Your task to perform on an android device: Go to Reddit.com Image 0: 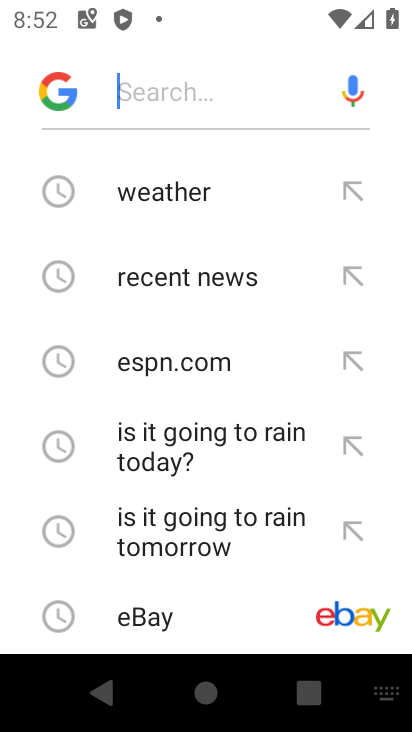
Step 0: press home button
Your task to perform on an android device: Go to Reddit.com Image 1: 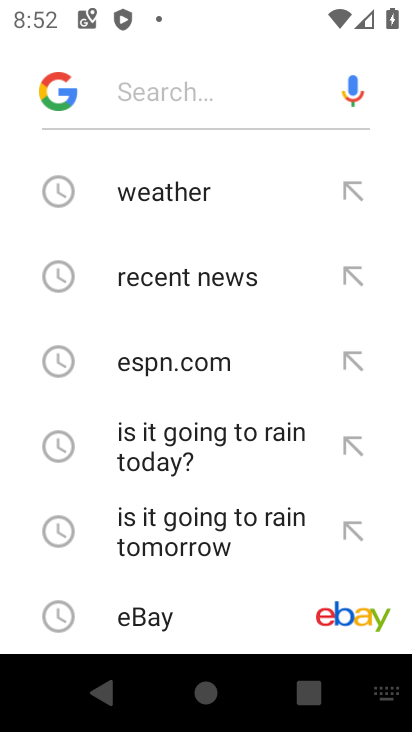
Step 1: press home button
Your task to perform on an android device: Go to Reddit.com Image 2: 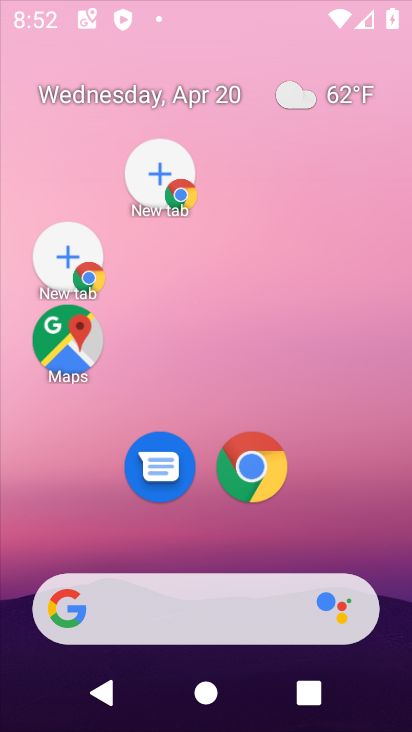
Step 2: press home button
Your task to perform on an android device: Go to Reddit.com Image 3: 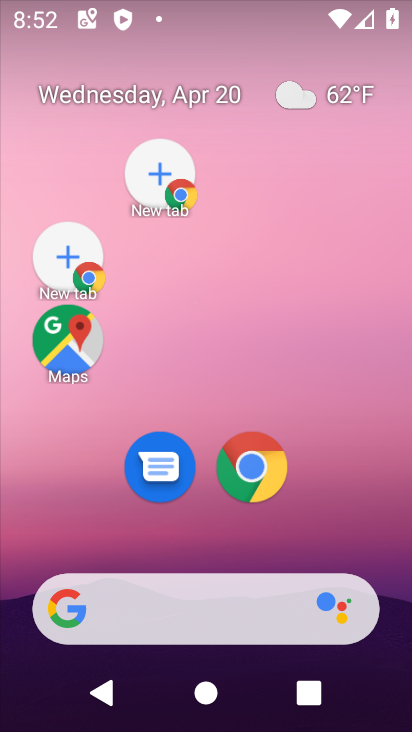
Step 3: click (163, 29)
Your task to perform on an android device: Go to Reddit.com Image 4: 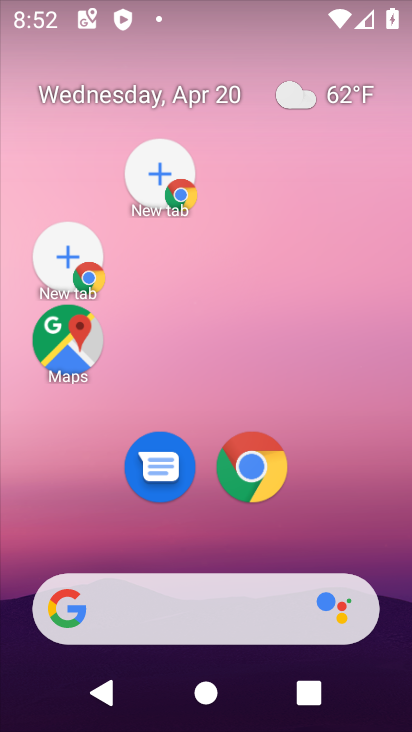
Step 4: drag from (218, 449) to (179, 98)
Your task to perform on an android device: Go to Reddit.com Image 5: 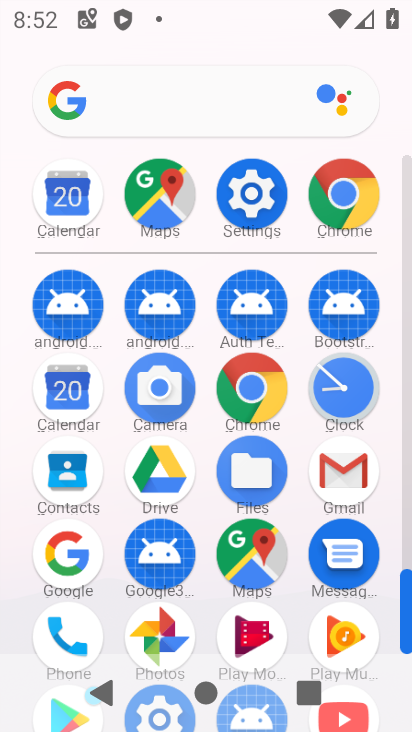
Step 5: drag from (271, 417) to (200, 117)
Your task to perform on an android device: Go to Reddit.com Image 6: 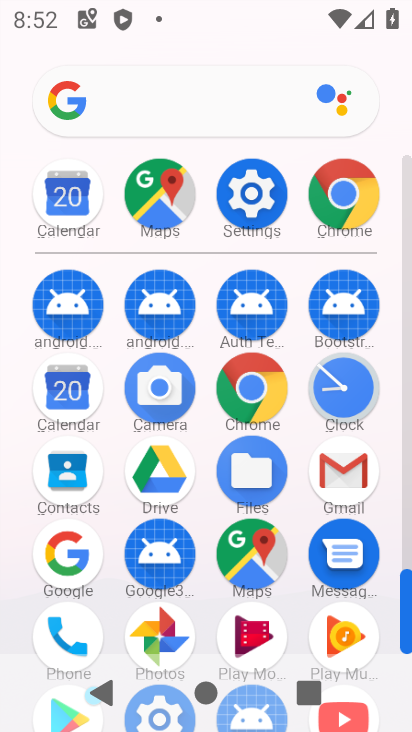
Step 6: drag from (207, 519) to (153, 224)
Your task to perform on an android device: Go to Reddit.com Image 7: 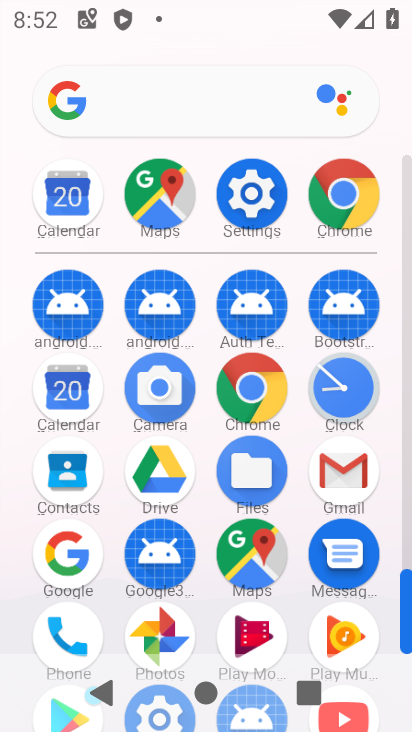
Step 7: drag from (183, 365) to (183, 87)
Your task to perform on an android device: Go to Reddit.com Image 8: 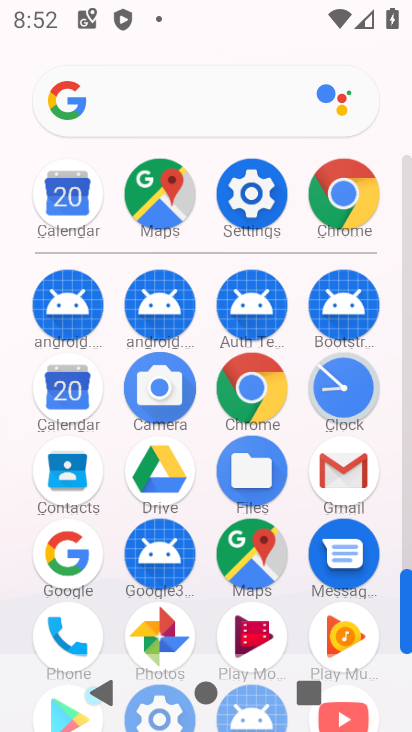
Step 8: drag from (216, 421) to (215, 254)
Your task to perform on an android device: Go to Reddit.com Image 9: 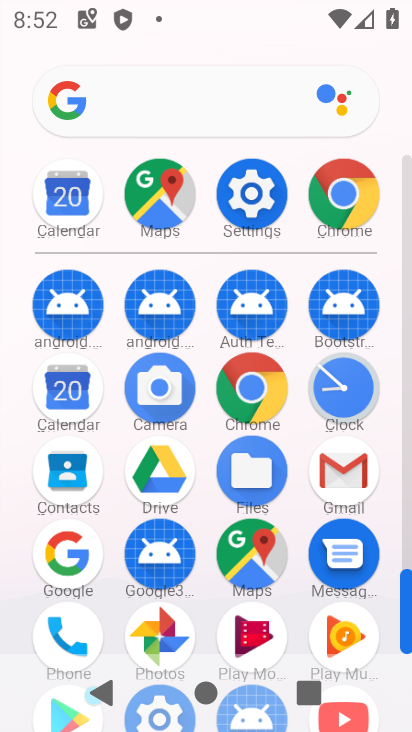
Step 9: drag from (166, 225) to (185, 103)
Your task to perform on an android device: Go to Reddit.com Image 10: 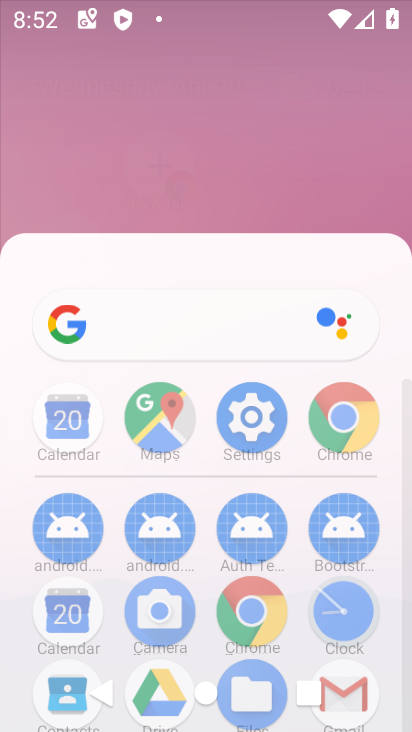
Step 10: drag from (213, 131) to (223, 75)
Your task to perform on an android device: Go to Reddit.com Image 11: 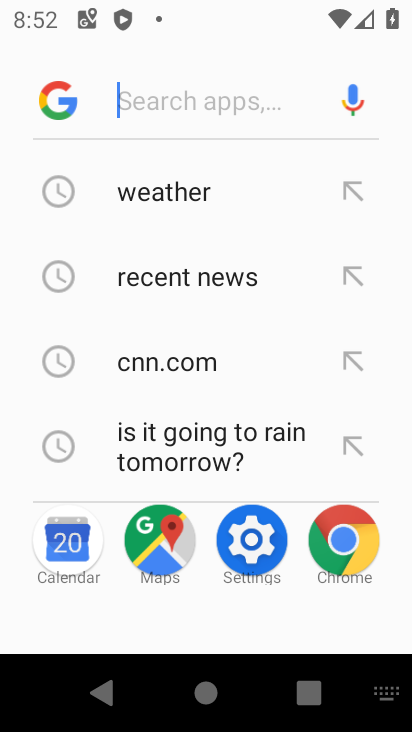
Step 11: press home button
Your task to perform on an android device: Go to Reddit.com Image 12: 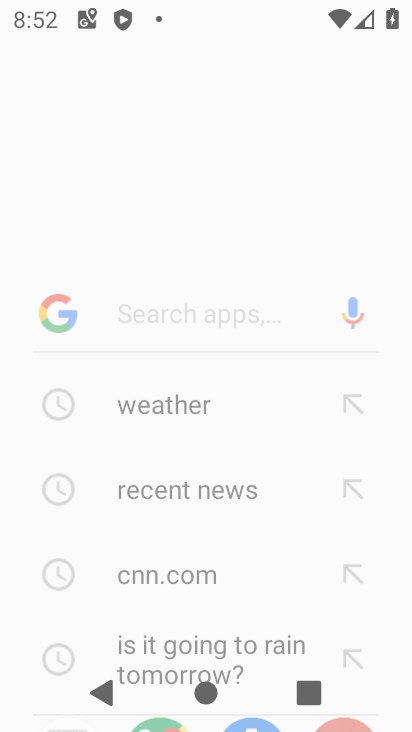
Step 12: press home button
Your task to perform on an android device: Go to Reddit.com Image 13: 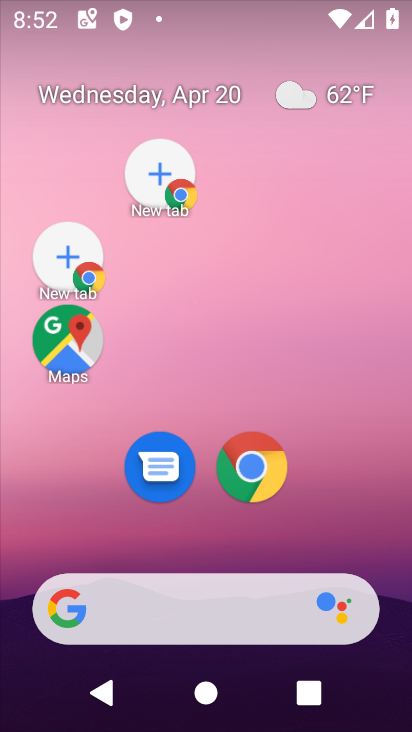
Step 13: press home button
Your task to perform on an android device: Go to Reddit.com Image 14: 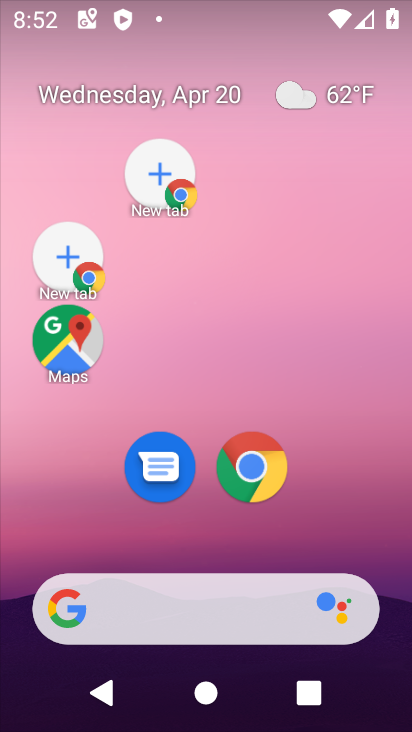
Step 14: press home button
Your task to perform on an android device: Go to Reddit.com Image 15: 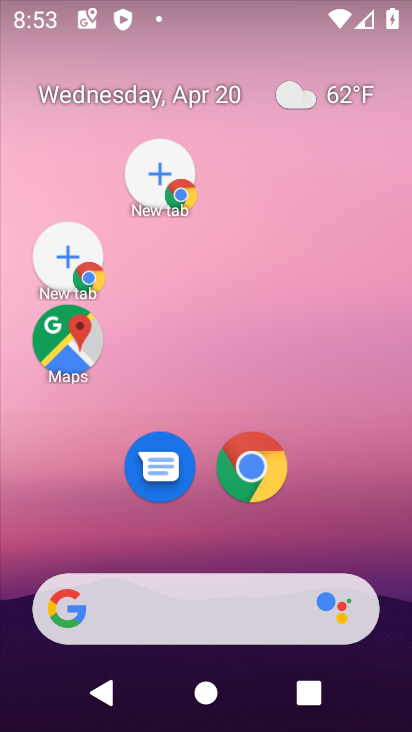
Step 15: drag from (258, 230) to (234, 92)
Your task to perform on an android device: Go to Reddit.com Image 16: 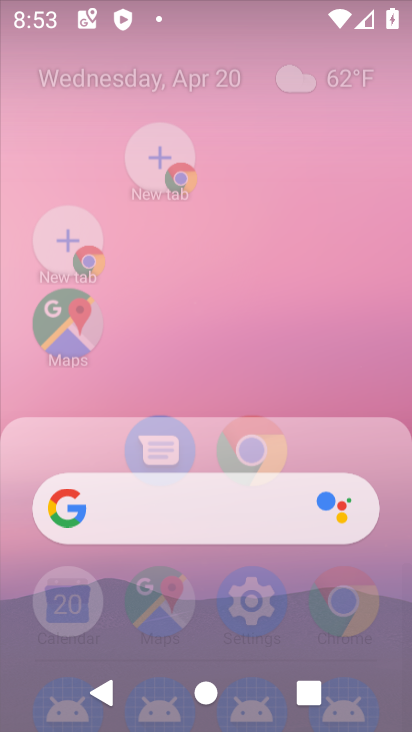
Step 16: drag from (277, 397) to (259, 12)
Your task to perform on an android device: Go to Reddit.com Image 17: 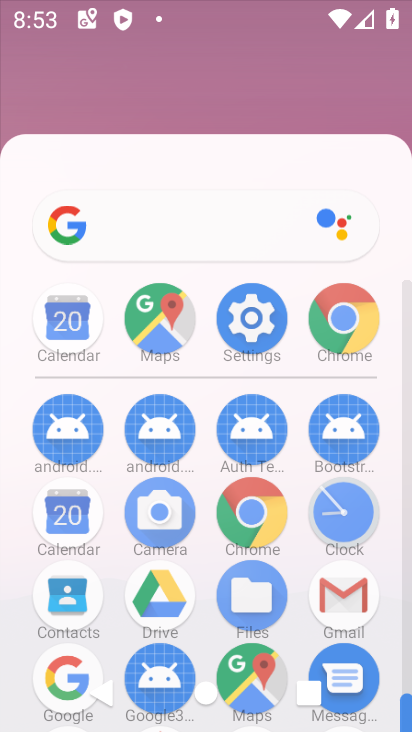
Step 17: drag from (265, 166) to (282, 8)
Your task to perform on an android device: Go to Reddit.com Image 18: 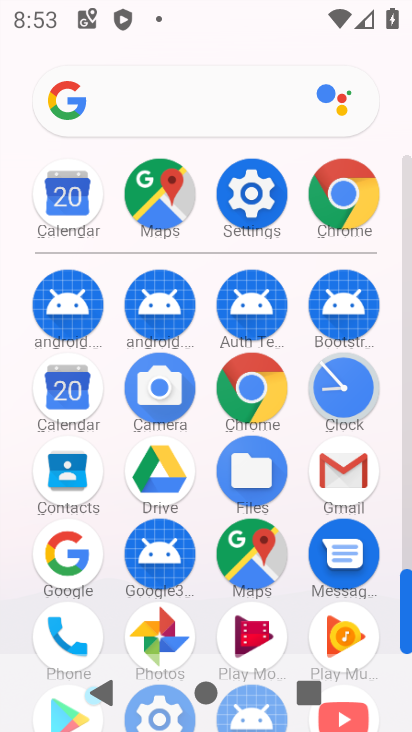
Step 18: drag from (189, 191) to (189, 18)
Your task to perform on an android device: Go to Reddit.com Image 19: 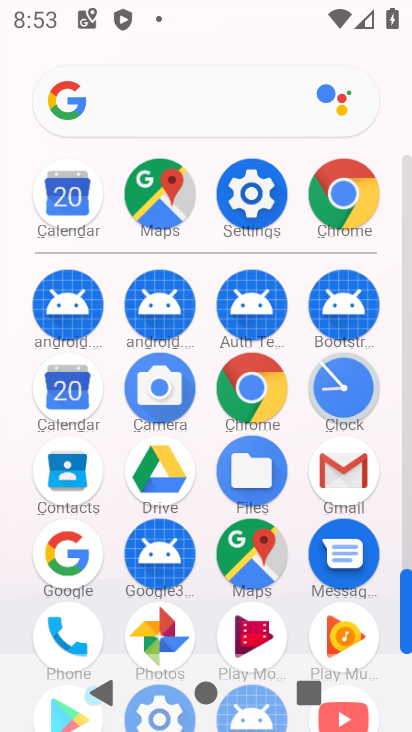
Step 19: click (398, 670)
Your task to perform on an android device: Go to Reddit.com Image 20: 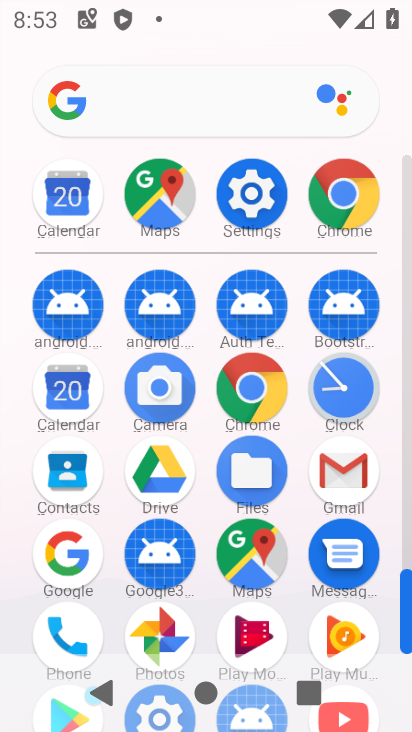
Step 20: drag from (355, 368) to (335, 138)
Your task to perform on an android device: Go to Reddit.com Image 21: 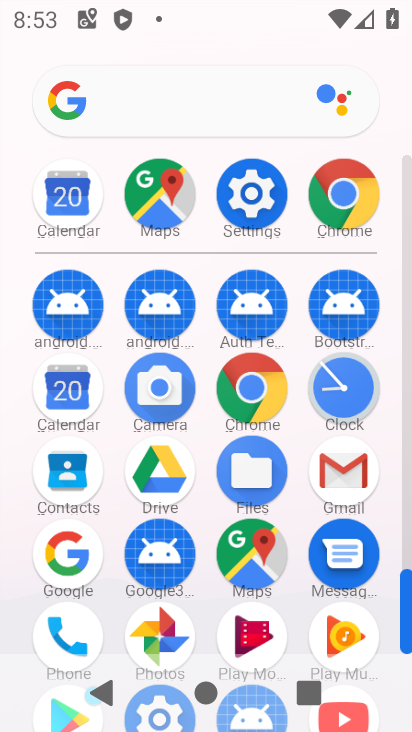
Step 21: drag from (286, 468) to (220, 118)
Your task to perform on an android device: Go to Reddit.com Image 22: 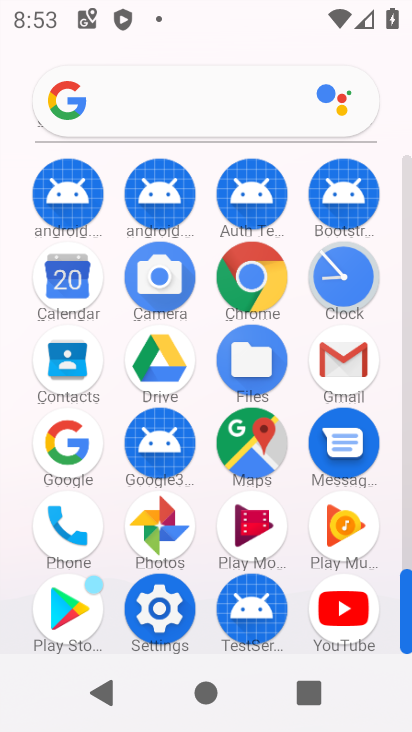
Step 22: click (245, 270)
Your task to perform on an android device: Go to Reddit.com Image 23: 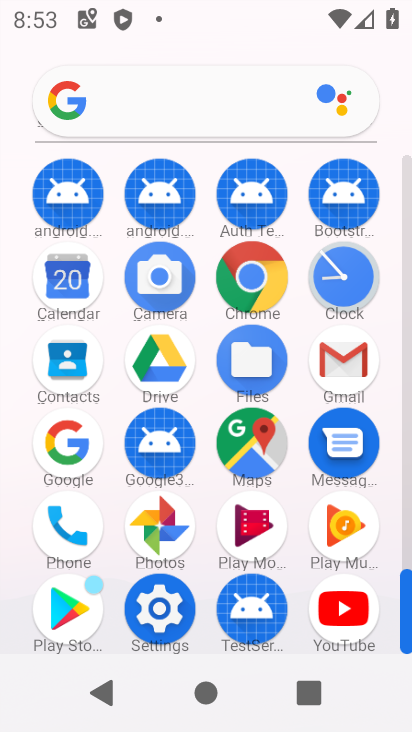
Step 23: click (244, 268)
Your task to perform on an android device: Go to Reddit.com Image 24: 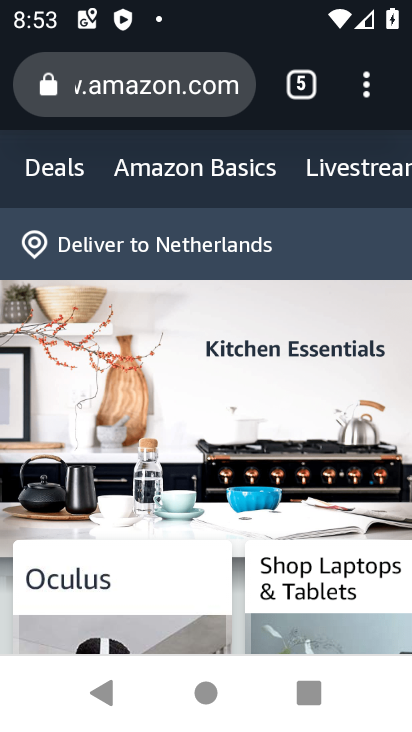
Step 24: click (361, 94)
Your task to perform on an android device: Go to Reddit.com Image 25: 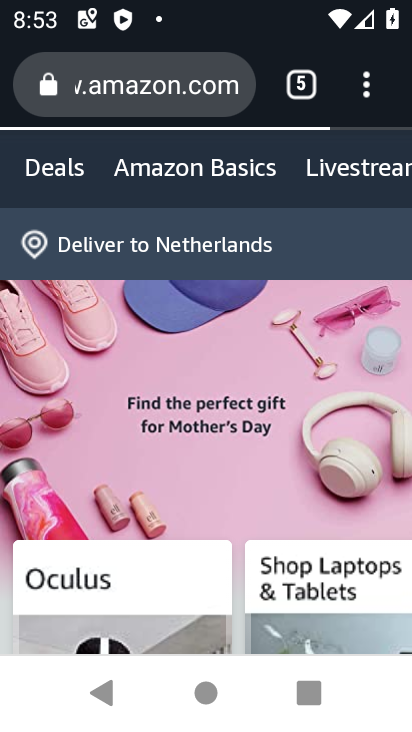
Step 25: click (364, 77)
Your task to perform on an android device: Go to Reddit.com Image 26: 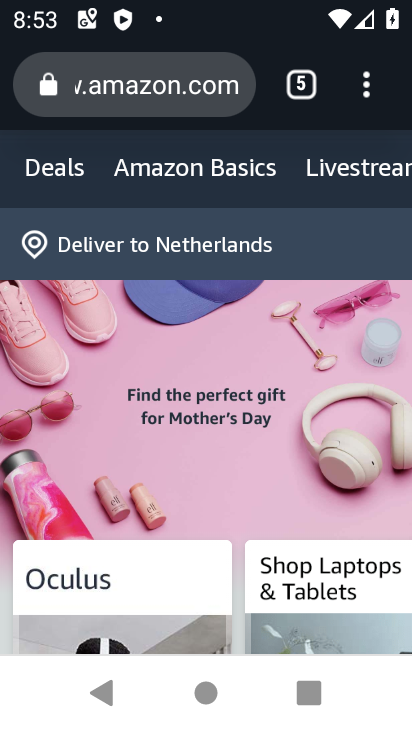
Step 26: click (364, 91)
Your task to perform on an android device: Go to Reddit.com Image 27: 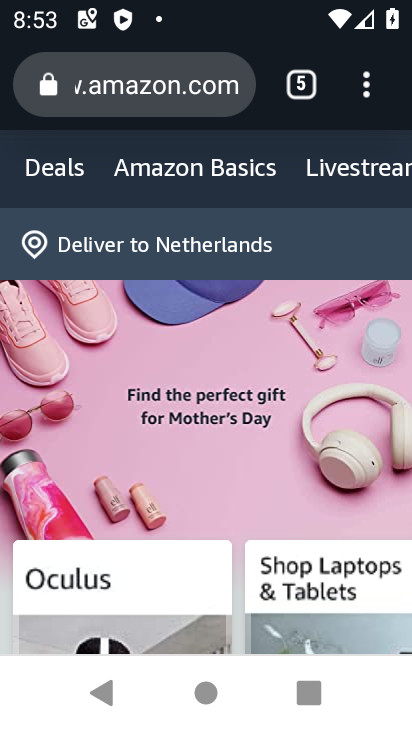
Step 27: click (357, 85)
Your task to perform on an android device: Go to Reddit.com Image 28: 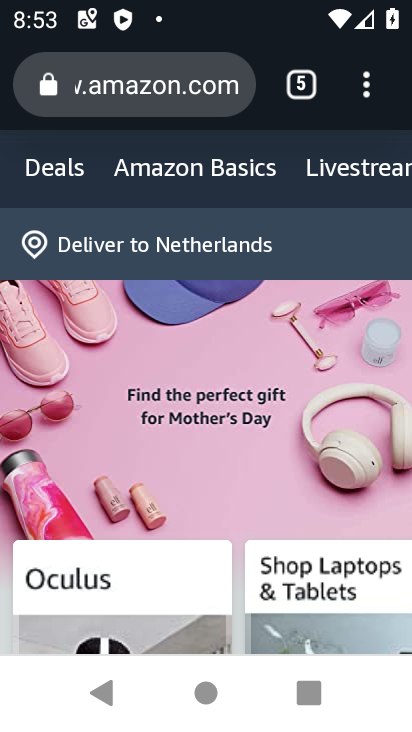
Step 28: click (367, 84)
Your task to perform on an android device: Go to Reddit.com Image 29: 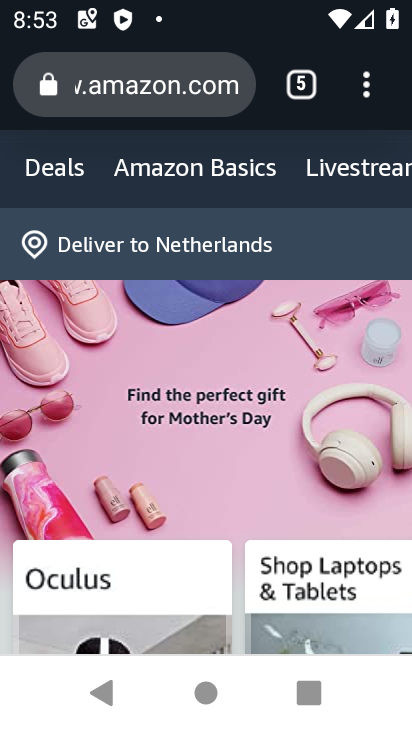
Step 29: click (365, 90)
Your task to perform on an android device: Go to Reddit.com Image 30: 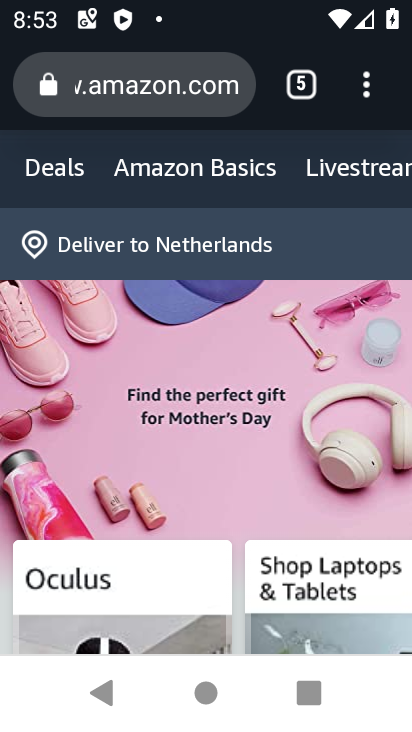
Step 30: click (366, 90)
Your task to perform on an android device: Go to Reddit.com Image 31: 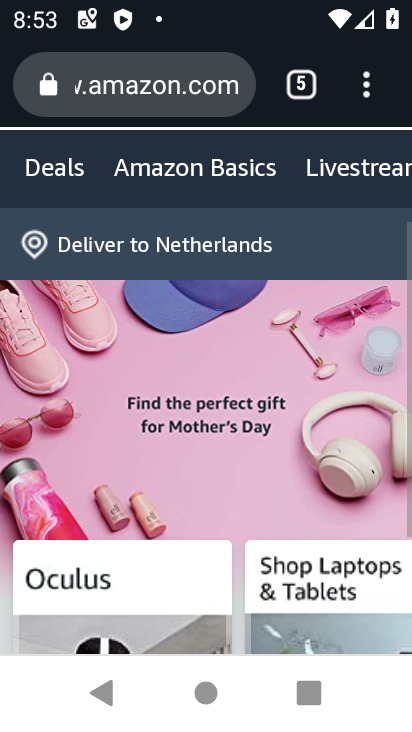
Step 31: click (366, 89)
Your task to perform on an android device: Go to Reddit.com Image 32: 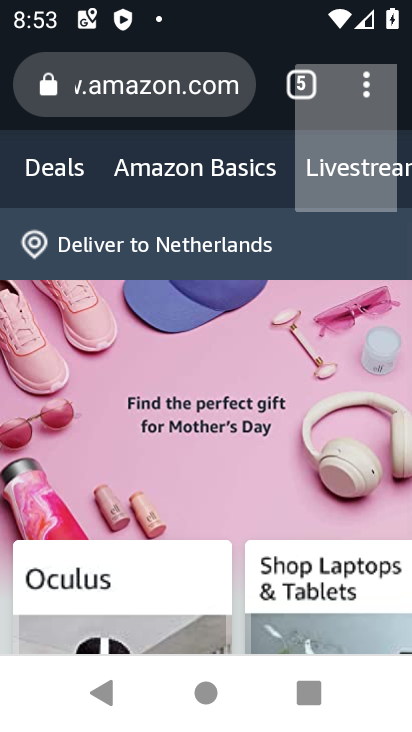
Step 32: click (366, 89)
Your task to perform on an android device: Go to Reddit.com Image 33: 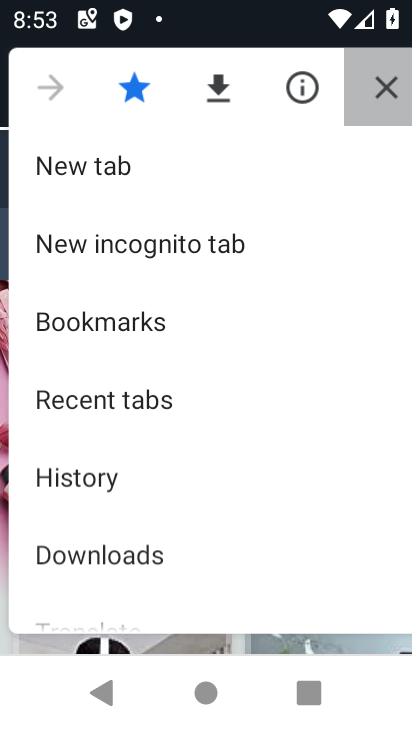
Step 33: click (366, 89)
Your task to perform on an android device: Go to Reddit.com Image 34: 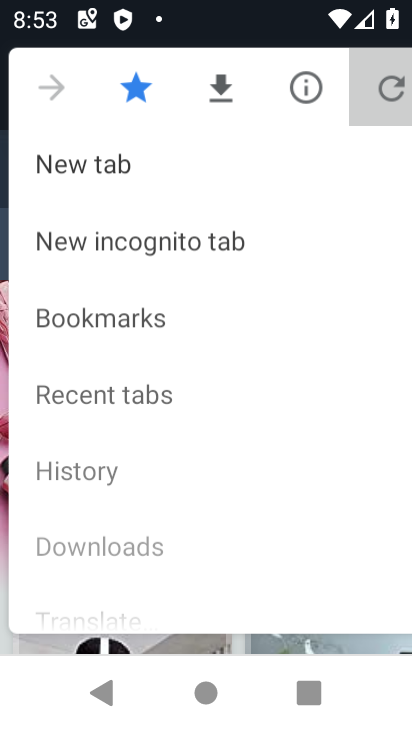
Step 34: click (366, 89)
Your task to perform on an android device: Go to Reddit.com Image 35: 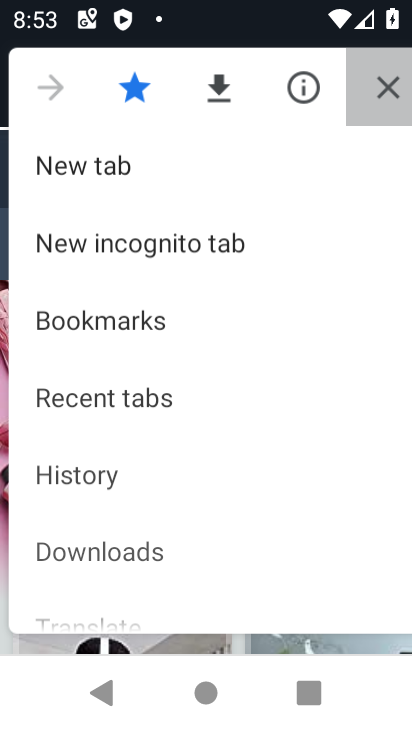
Step 35: drag from (366, 89) to (79, 170)
Your task to perform on an android device: Go to Reddit.com Image 36: 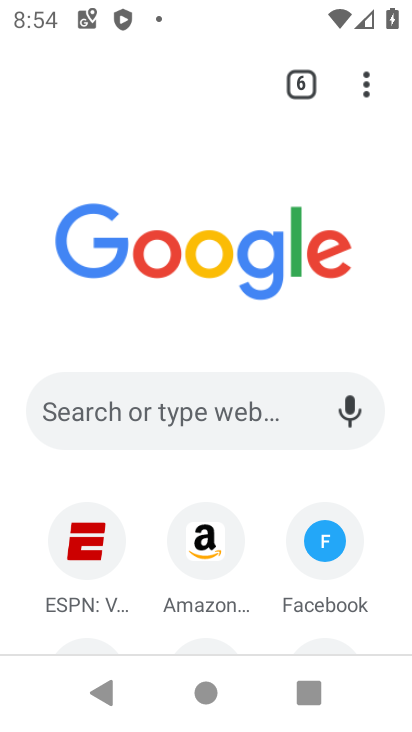
Step 36: click (125, 404)
Your task to perform on an android device: Go to Reddit.com Image 37: 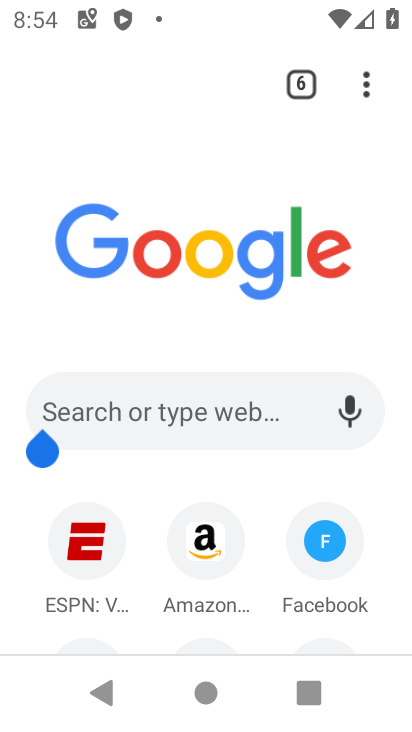
Step 37: click (119, 402)
Your task to perform on an android device: Go to Reddit.com Image 38: 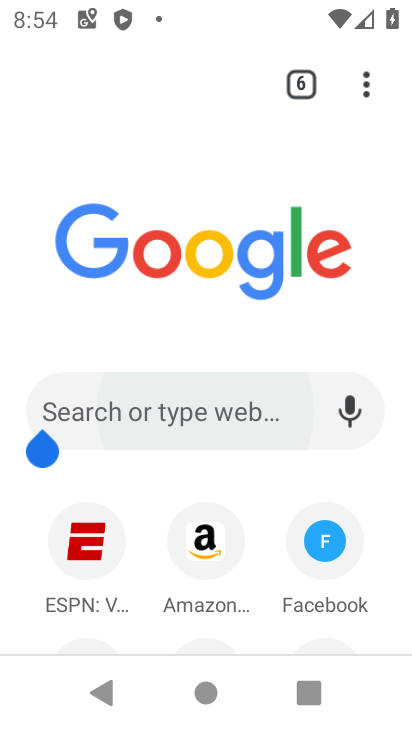
Step 38: click (123, 403)
Your task to perform on an android device: Go to Reddit.com Image 39: 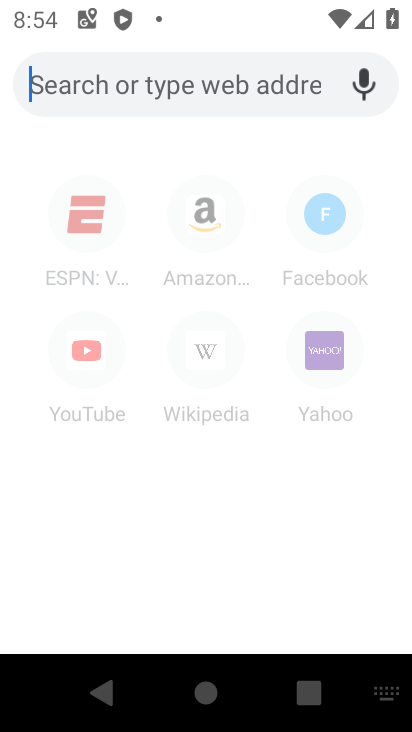
Step 39: click (67, 80)
Your task to perform on an android device: Go to Reddit.com Image 40: 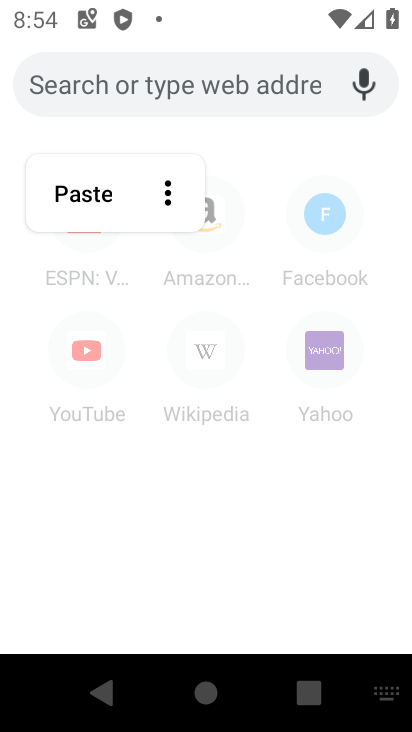
Step 40: type "www. reddit.com"
Your task to perform on an android device: Go to Reddit.com Image 41: 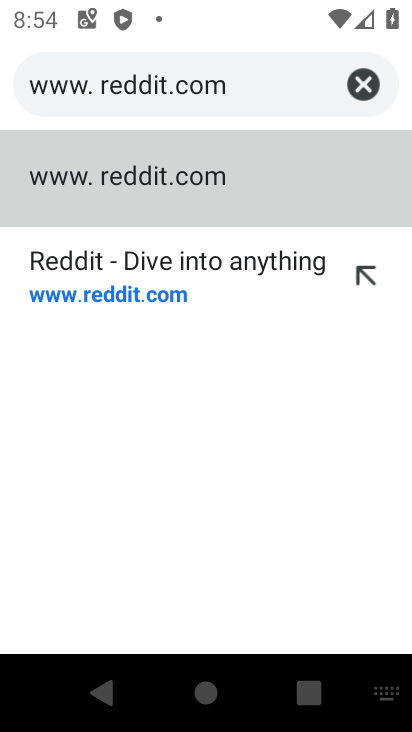
Step 41: click (136, 176)
Your task to perform on an android device: Go to Reddit.com Image 42: 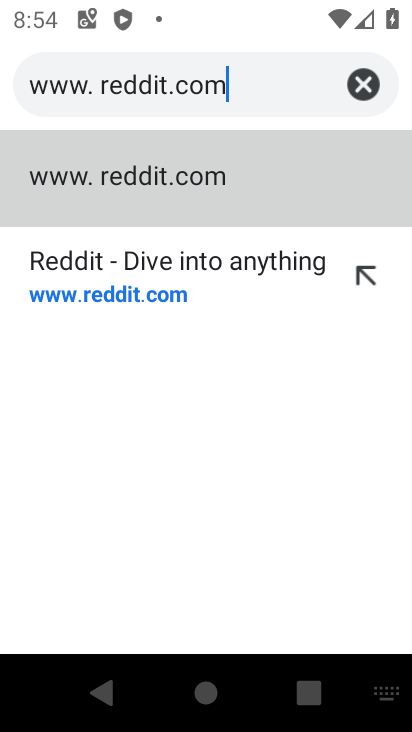
Step 42: click (136, 176)
Your task to perform on an android device: Go to Reddit.com Image 43: 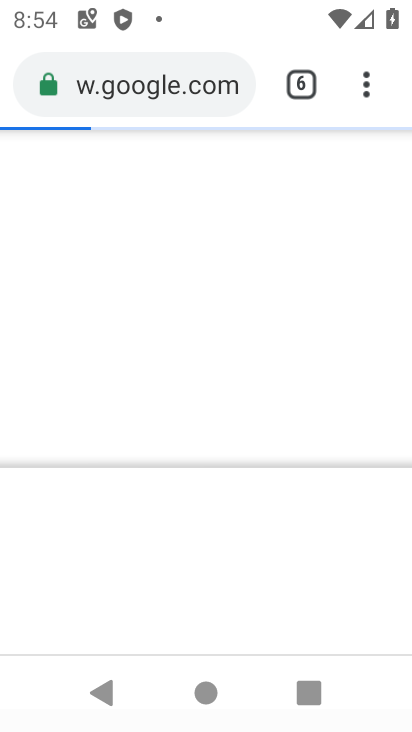
Step 43: click (136, 176)
Your task to perform on an android device: Go to Reddit.com Image 44: 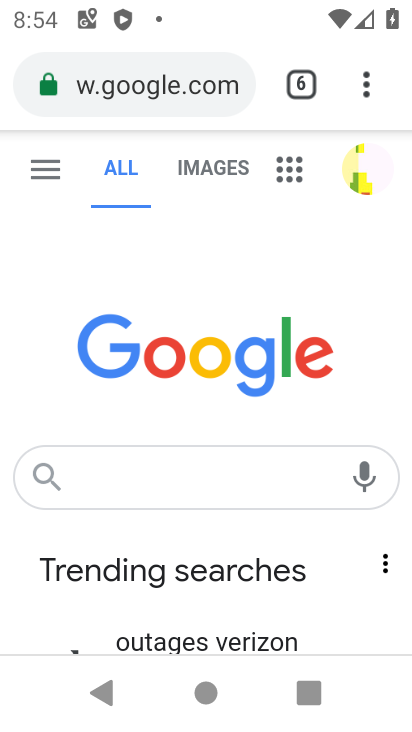
Step 44: task complete